Your task to perform on an android device: What's the news in Laos? Image 0: 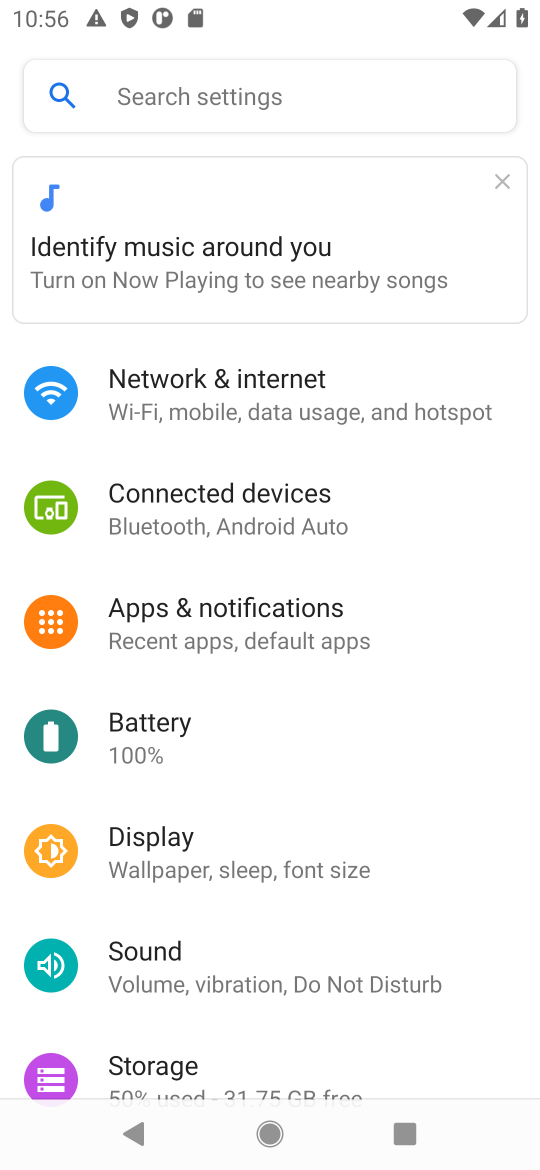
Step 0: press home button
Your task to perform on an android device: What's the news in Laos? Image 1: 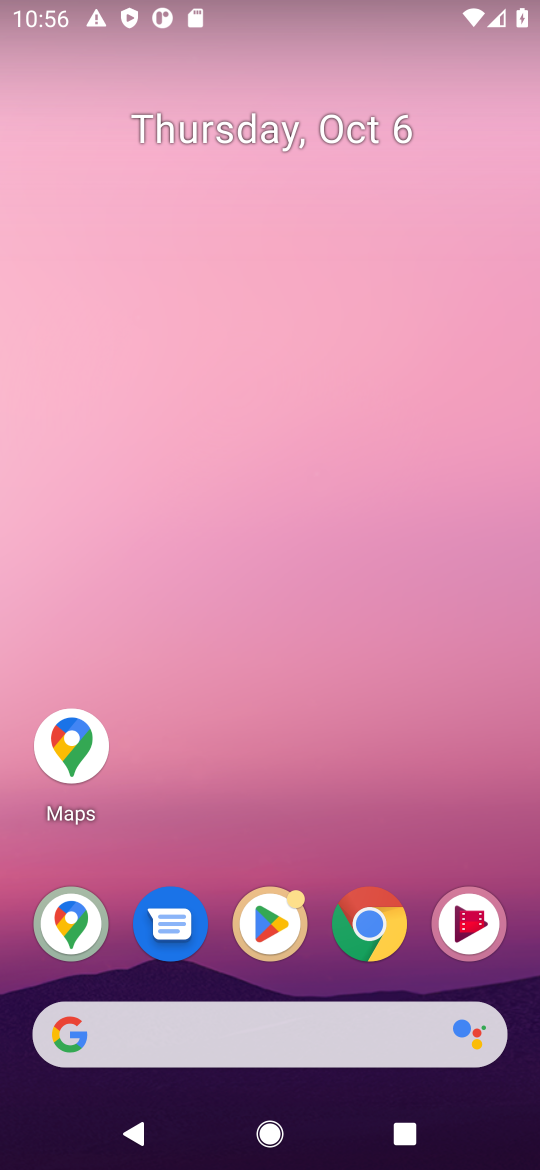
Step 1: click (361, 924)
Your task to perform on an android device: What's the news in Laos? Image 2: 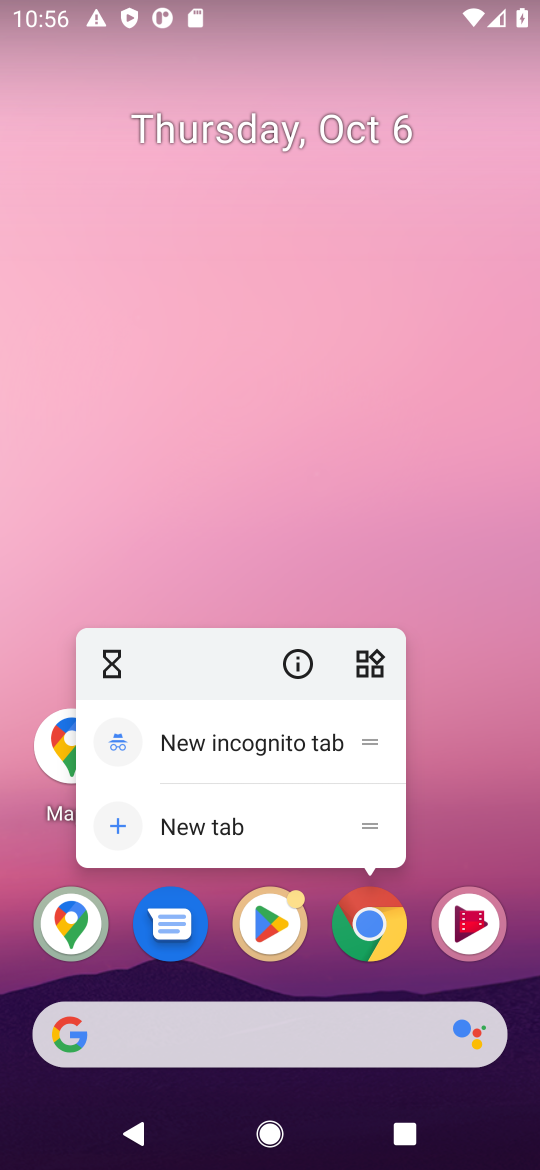
Step 2: click (372, 928)
Your task to perform on an android device: What's the news in Laos? Image 3: 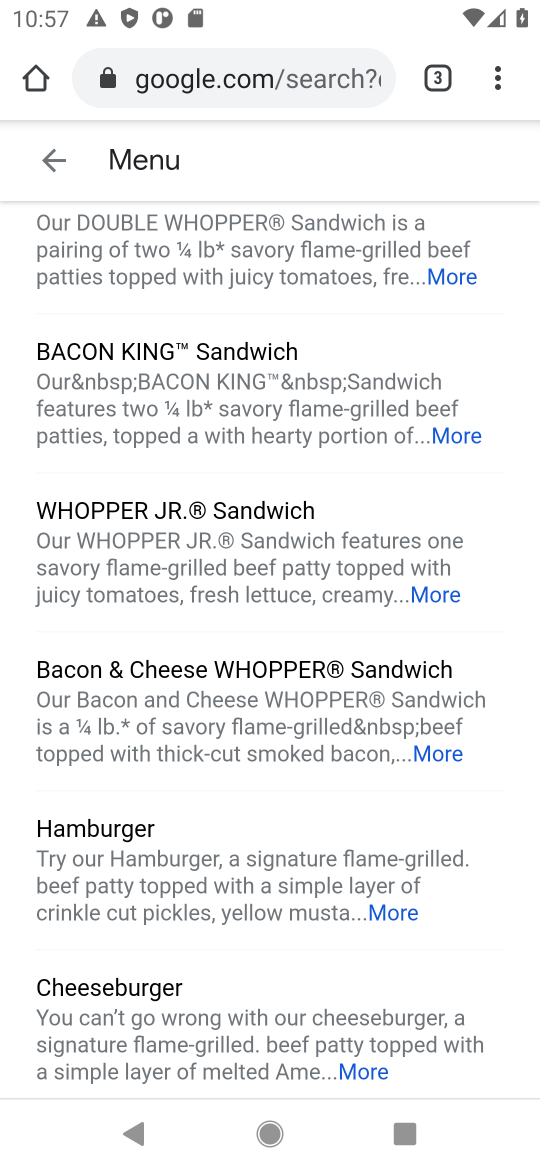
Step 3: click (290, 71)
Your task to perform on an android device: What's the news in Laos? Image 4: 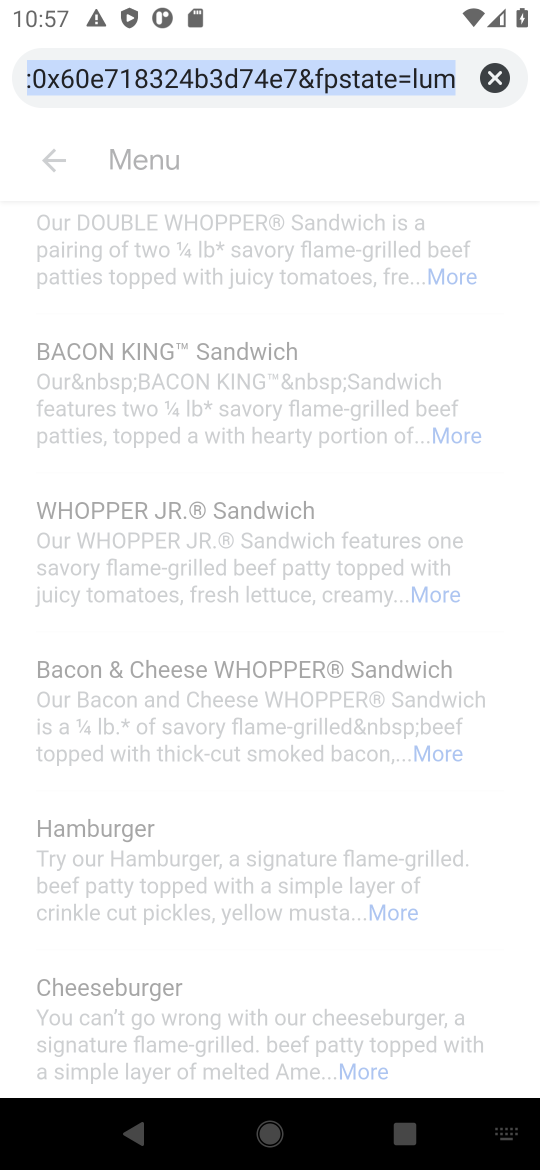
Step 4: click (502, 72)
Your task to perform on an android device: What's the news in Laos? Image 5: 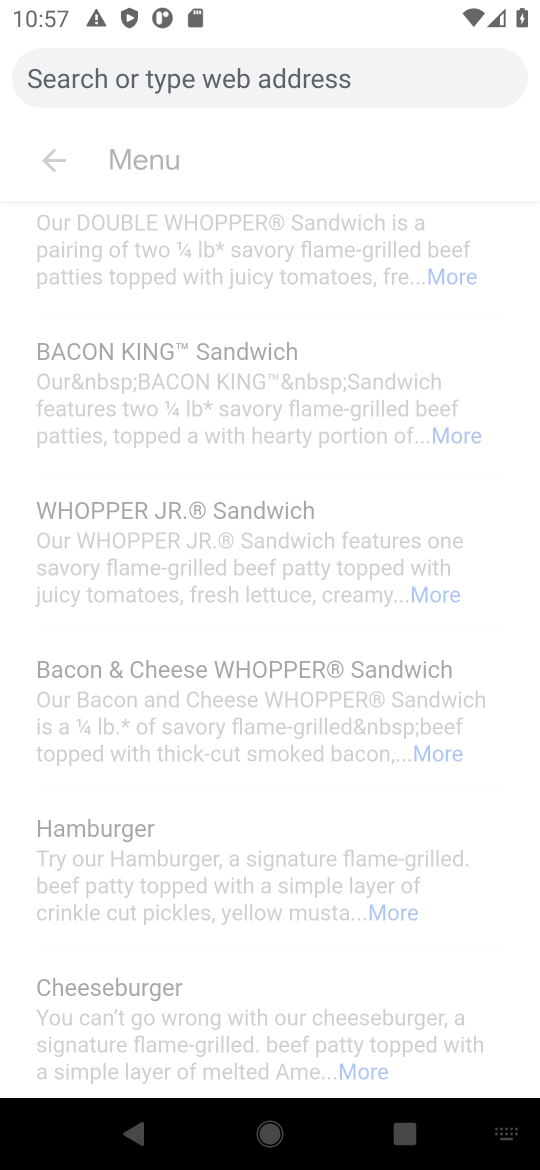
Step 5: type "news in Laos"
Your task to perform on an android device: What's the news in Laos? Image 6: 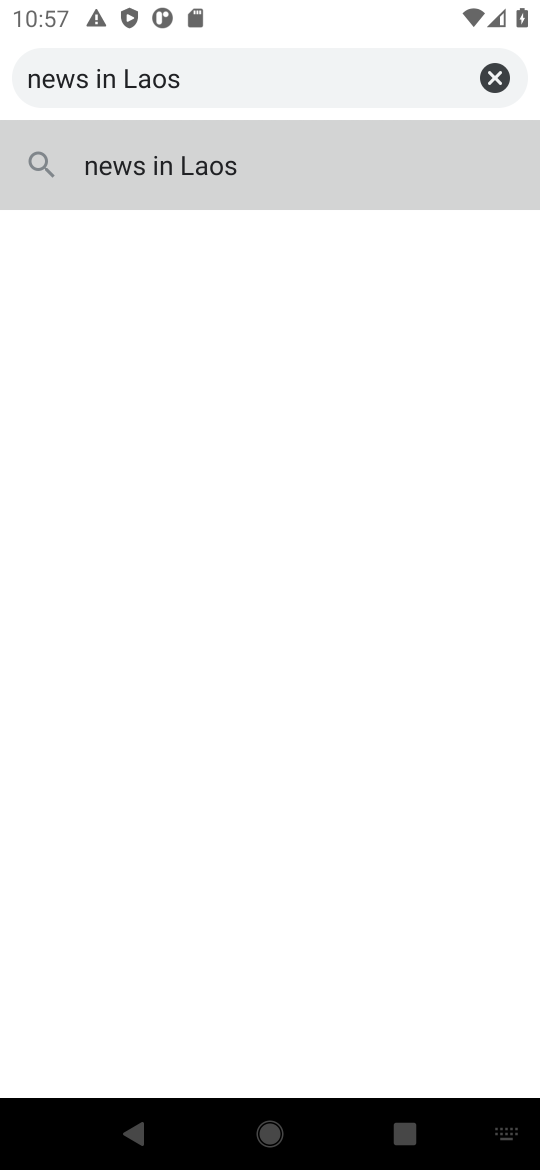
Step 6: click (158, 164)
Your task to perform on an android device: What's the news in Laos? Image 7: 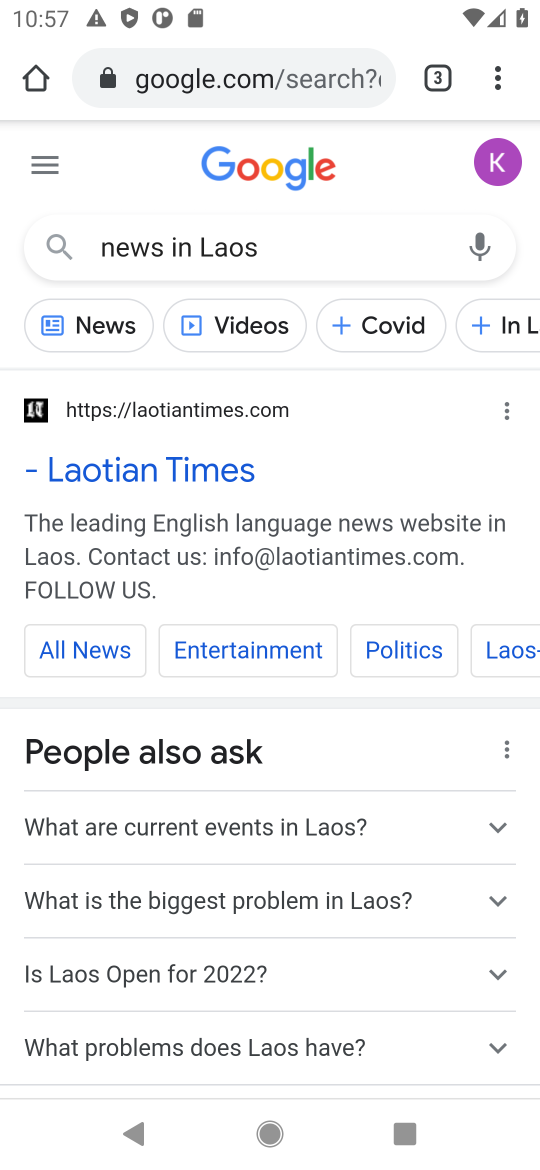
Step 7: click (104, 328)
Your task to perform on an android device: What's the news in Laos? Image 8: 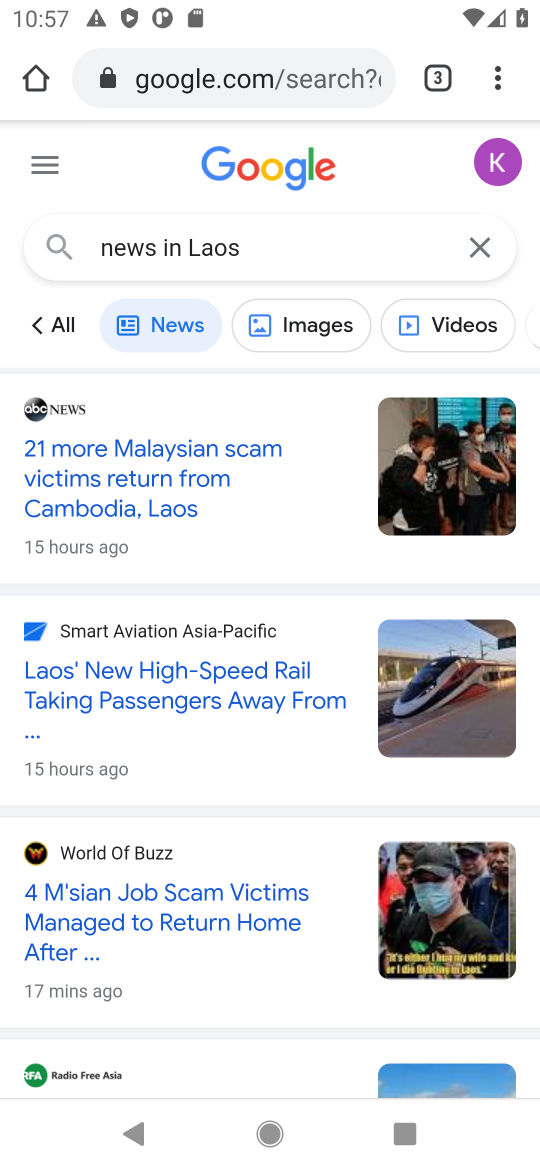
Step 8: task complete